Your task to perform on an android device: turn on bluetooth scan Image 0: 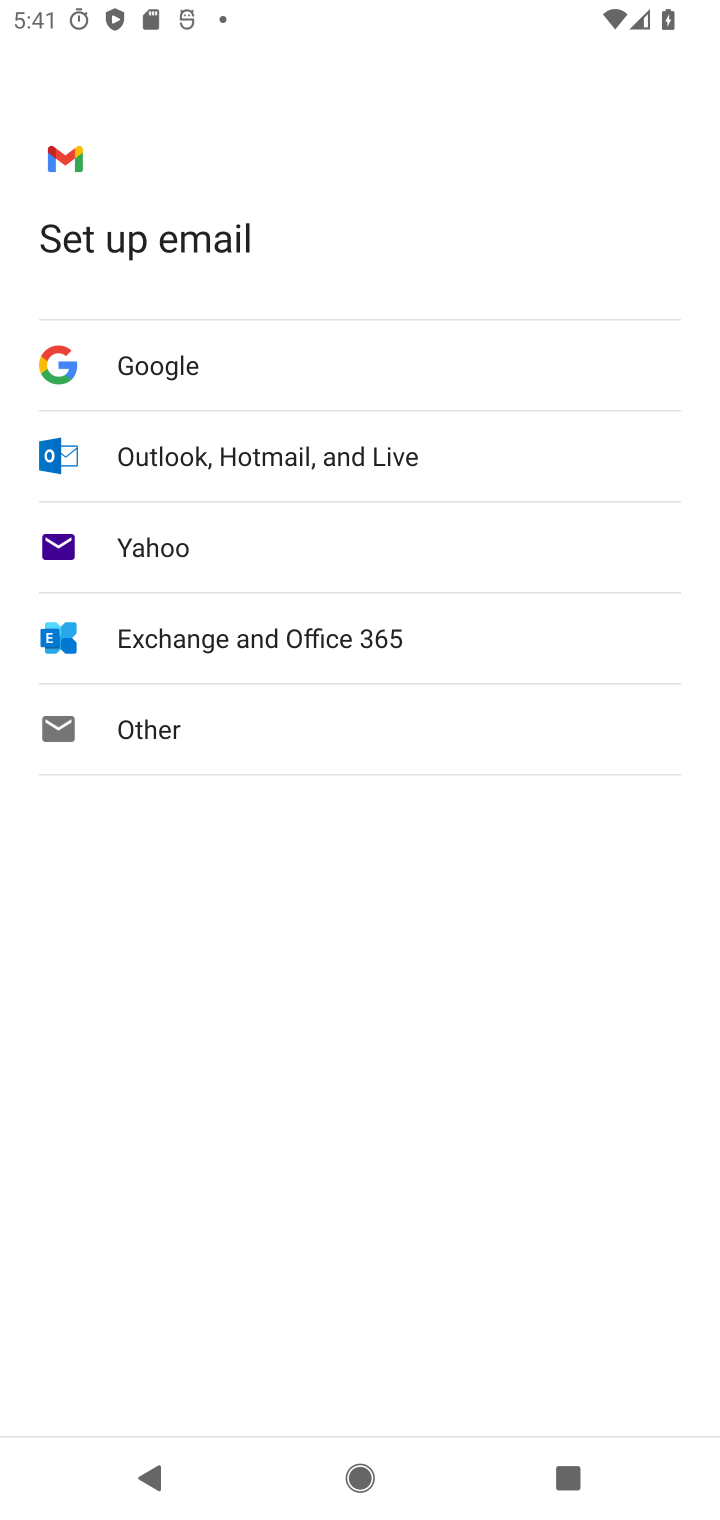
Step 0: press home button
Your task to perform on an android device: turn on bluetooth scan Image 1: 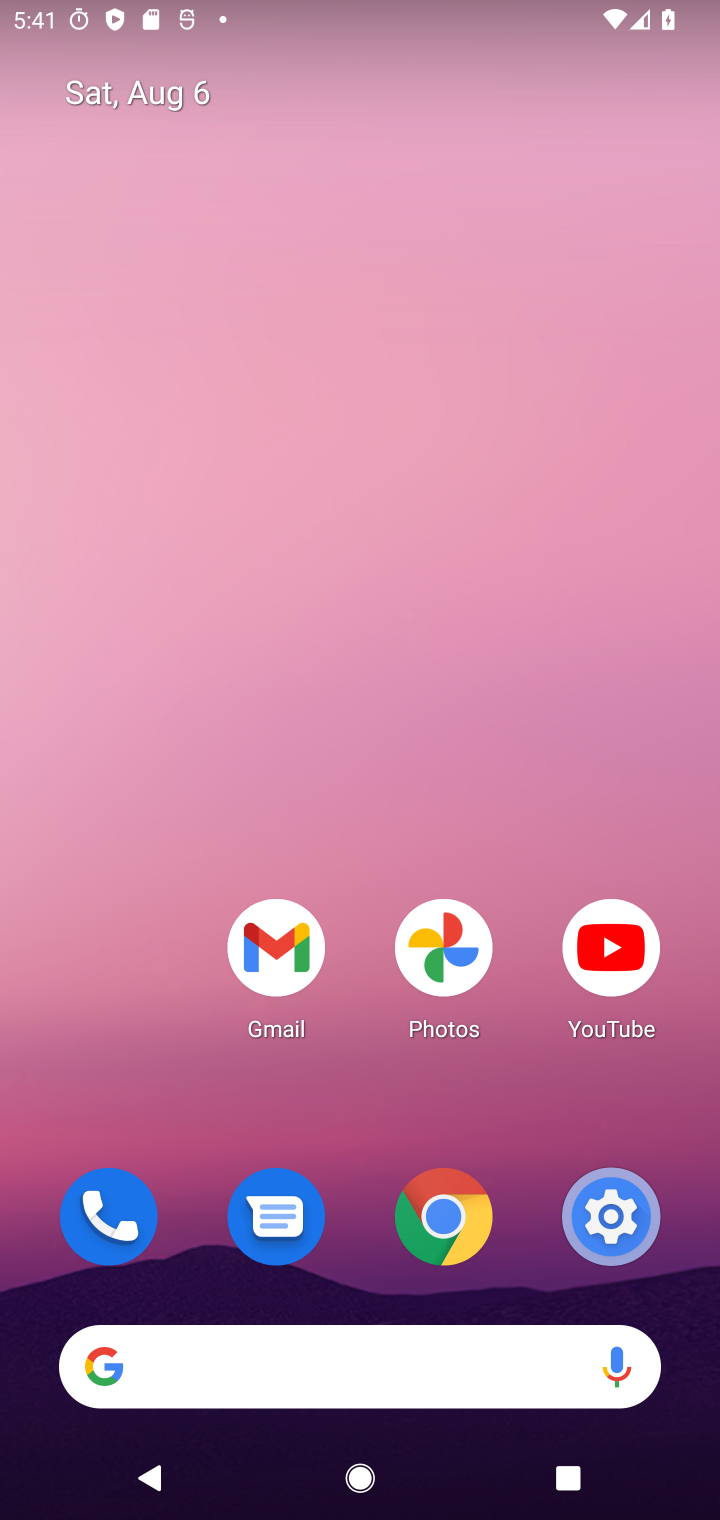
Step 1: drag from (365, 1057) to (446, 277)
Your task to perform on an android device: turn on bluetooth scan Image 2: 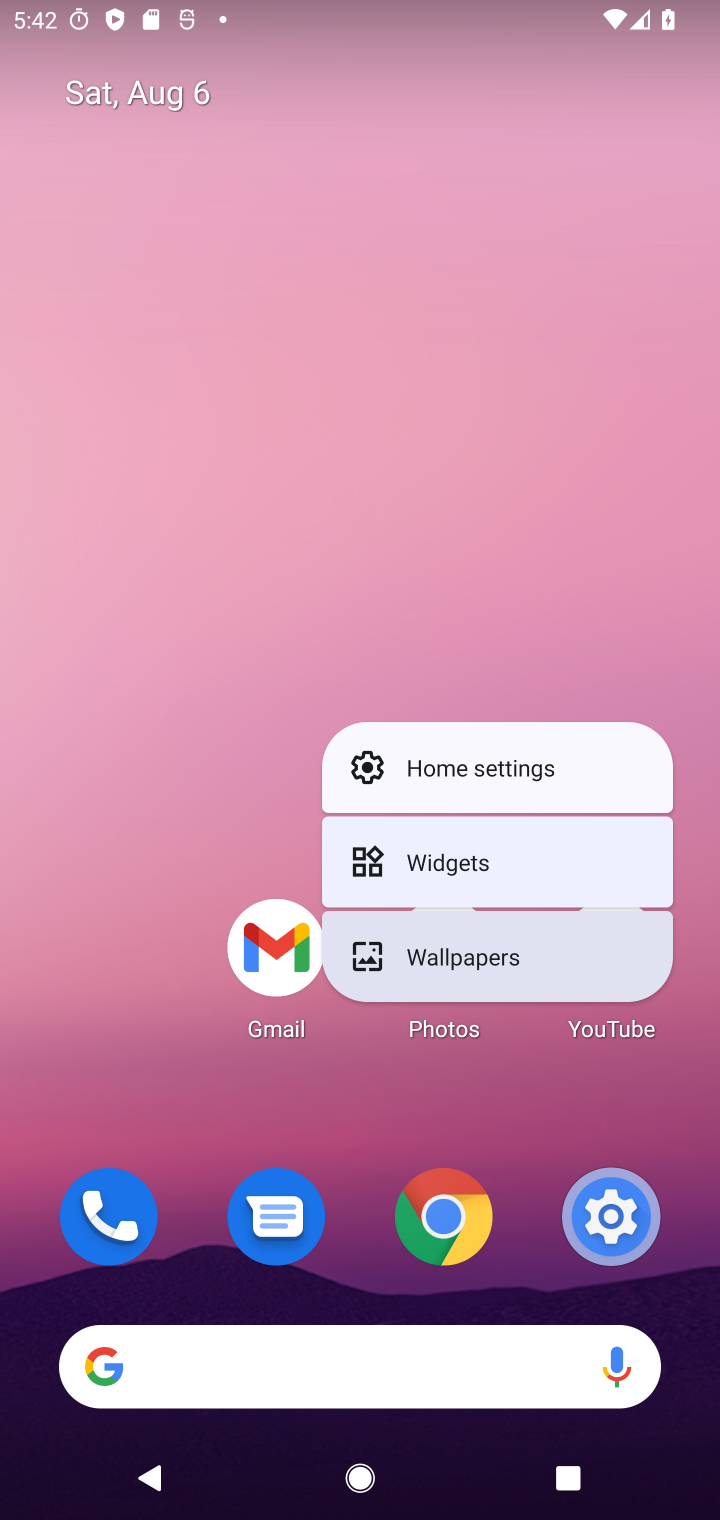
Step 2: click (319, 1090)
Your task to perform on an android device: turn on bluetooth scan Image 3: 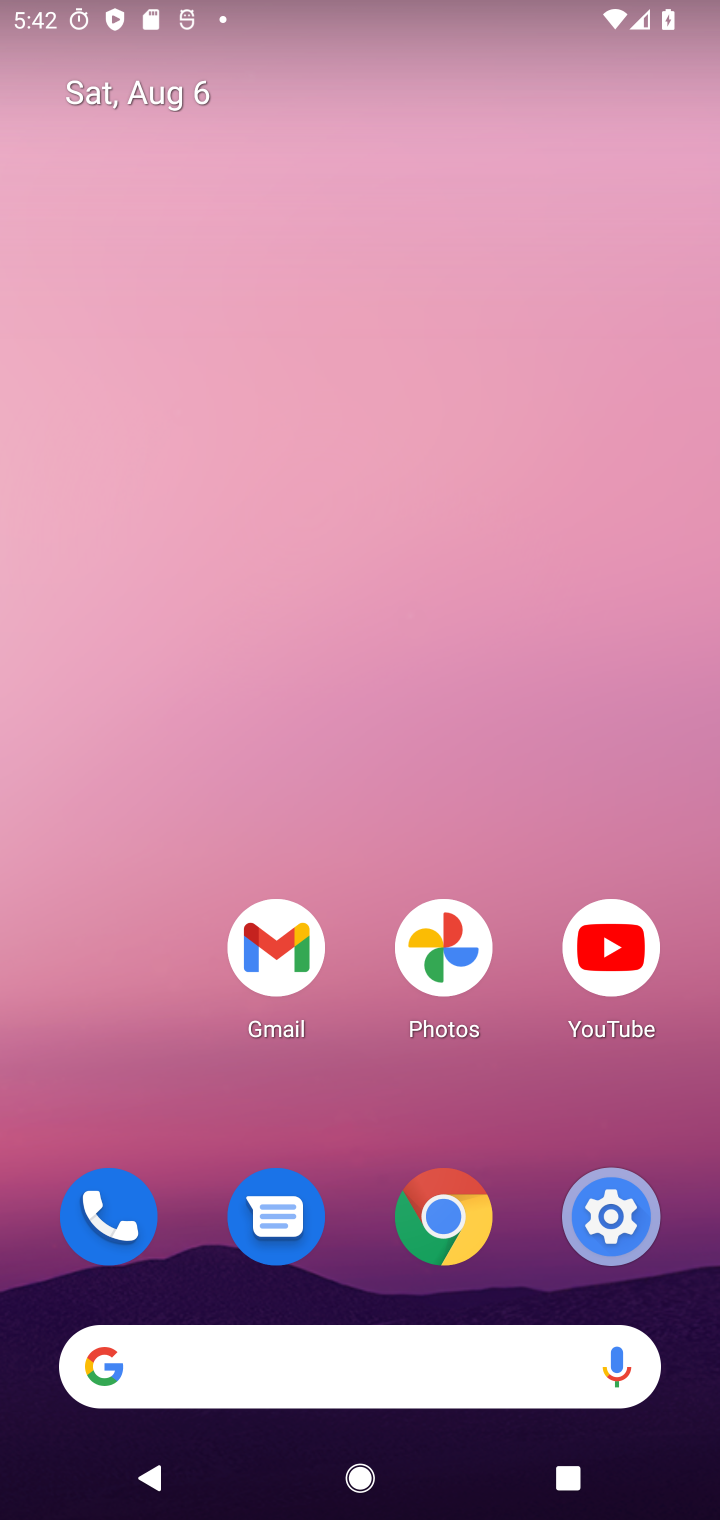
Step 3: drag from (401, 1013) to (506, 243)
Your task to perform on an android device: turn on bluetooth scan Image 4: 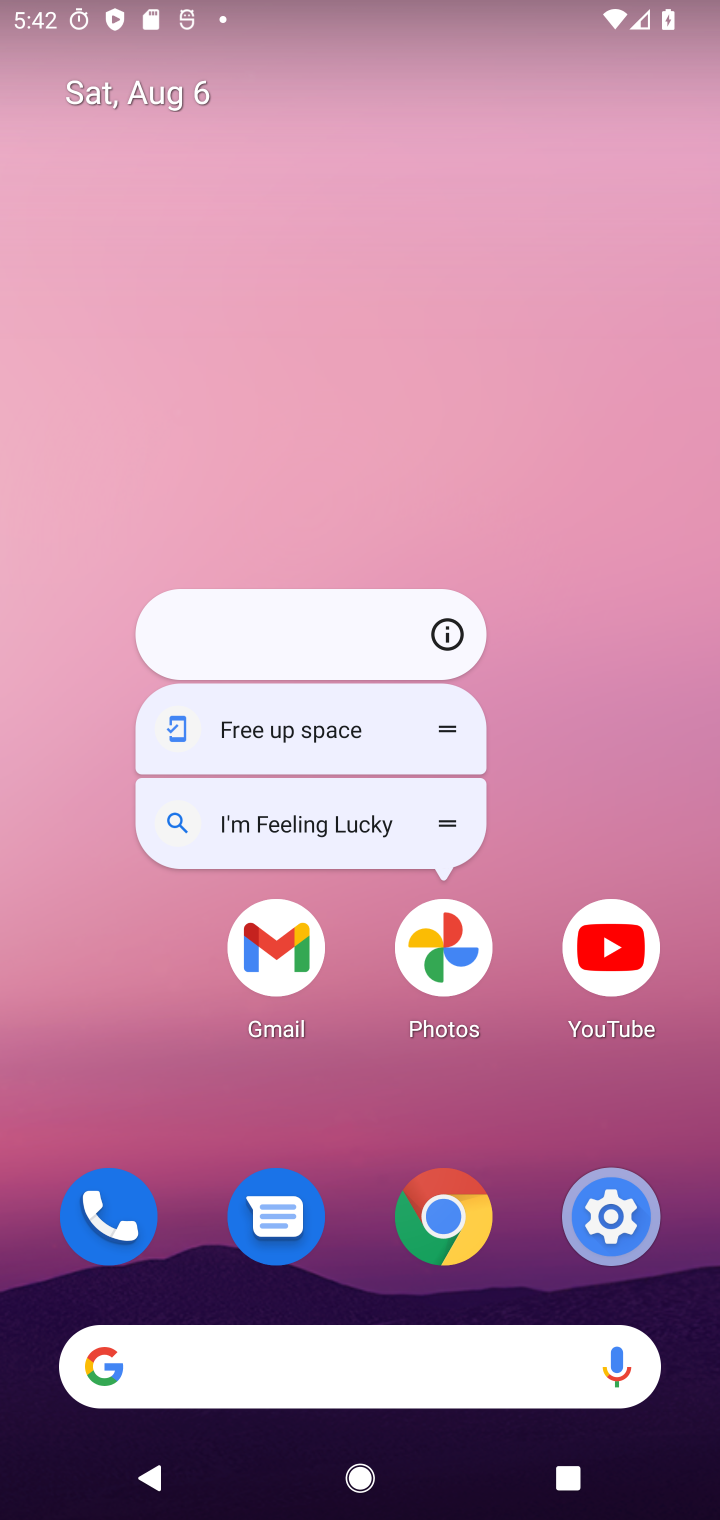
Step 4: click (473, 420)
Your task to perform on an android device: turn on bluetooth scan Image 5: 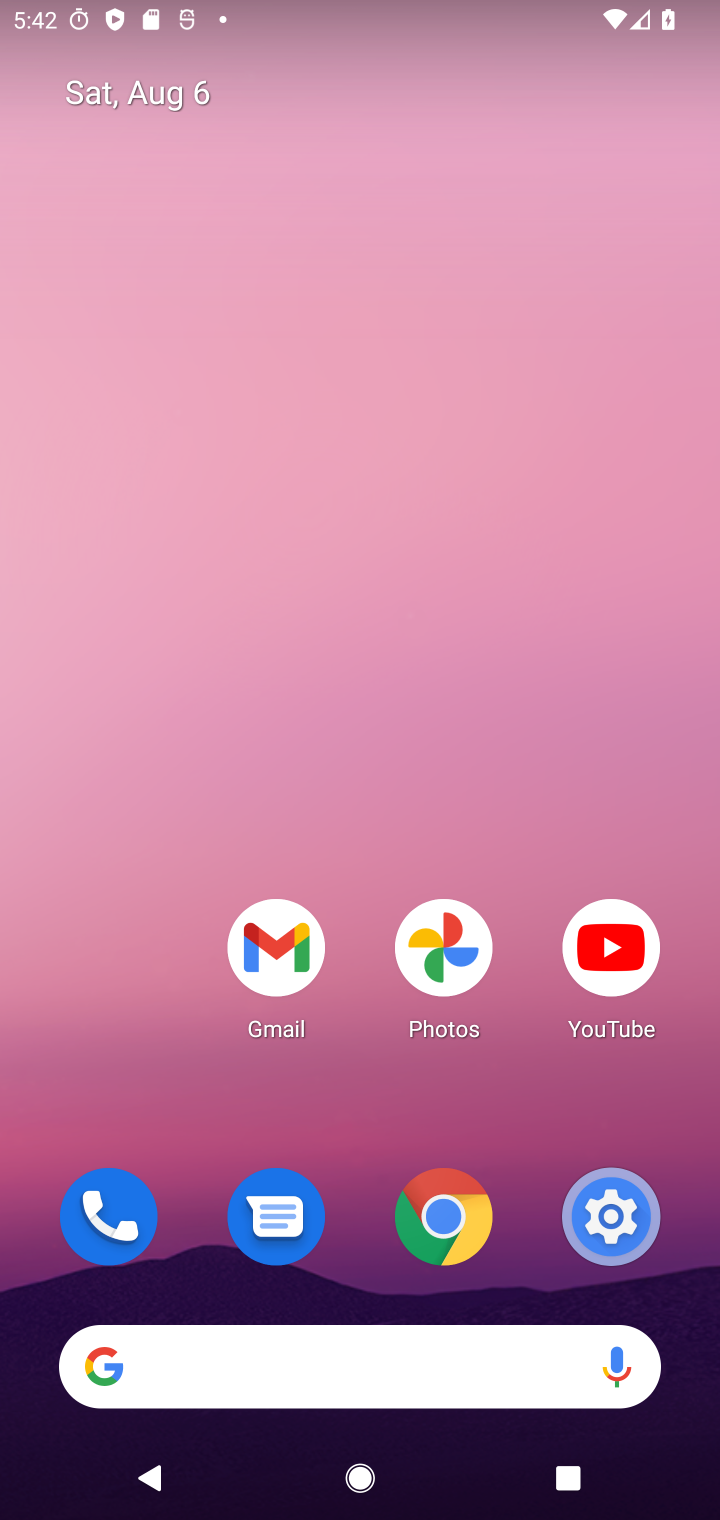
Step 5: click (384, 1151)
Your task to perform on an android device: turn on bluetooth scan Image 6: 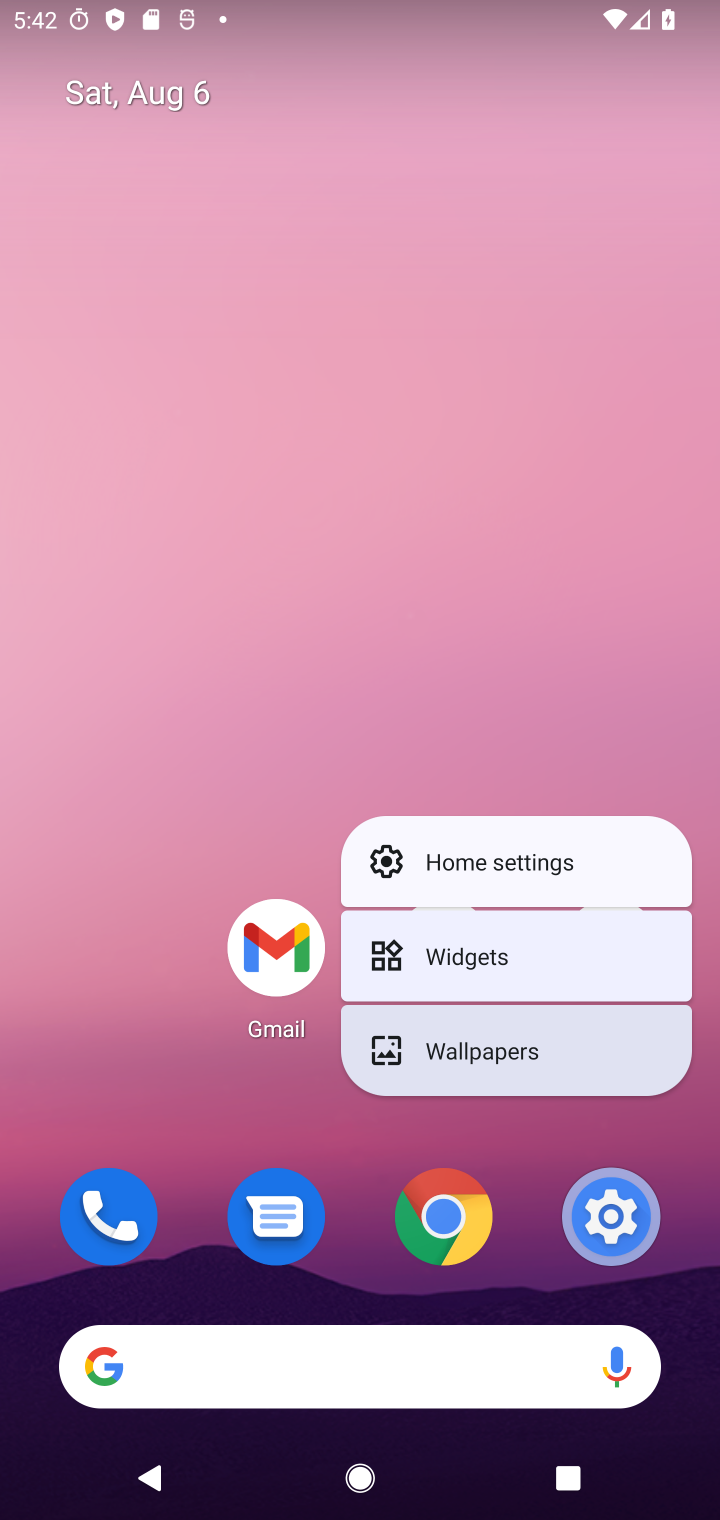
Step 6: click (357, 1135)
Your task to perform on an android device: turn on bluetooth scan Image 7: 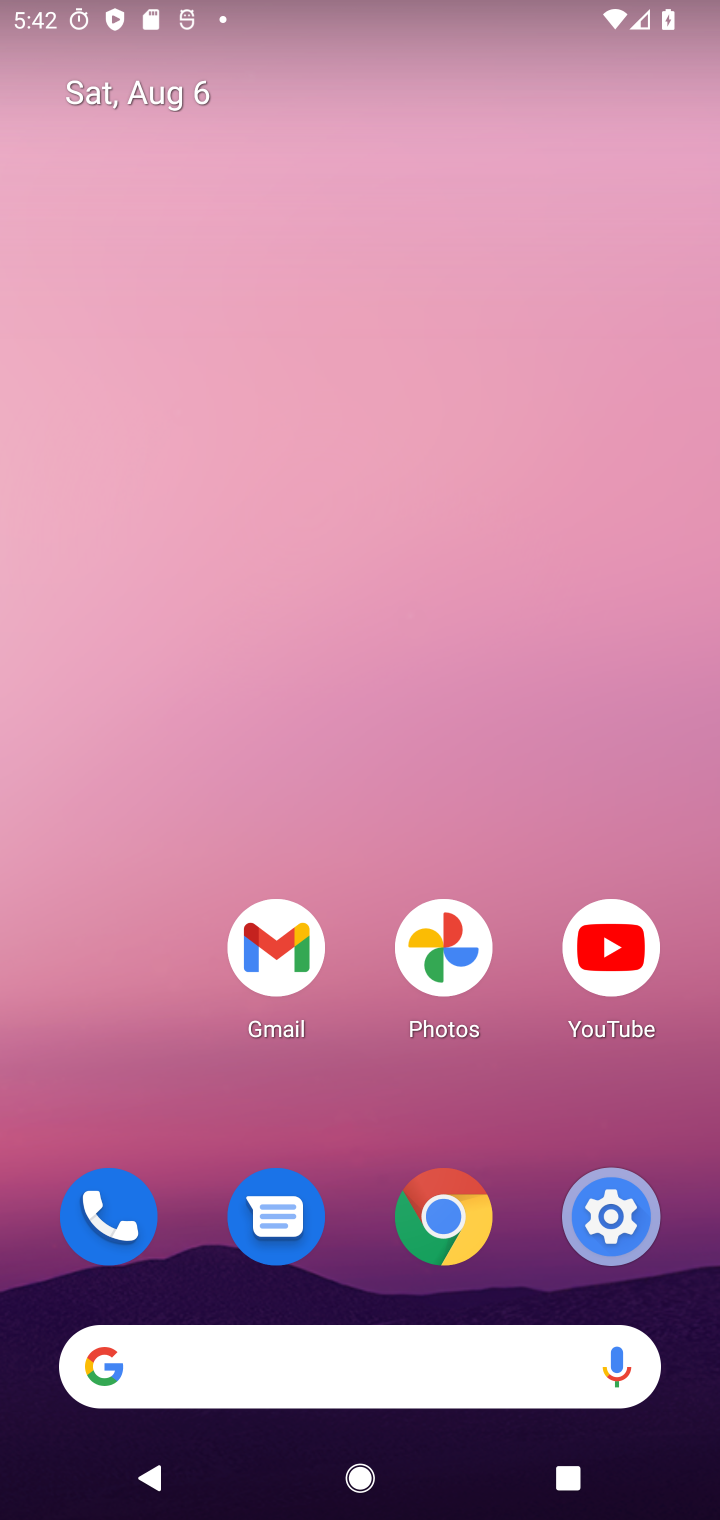
Step 7: drag from (357, 1135) to (401, 119)
Your task to perform on an android device: turn on bluetooth scan Image 8: 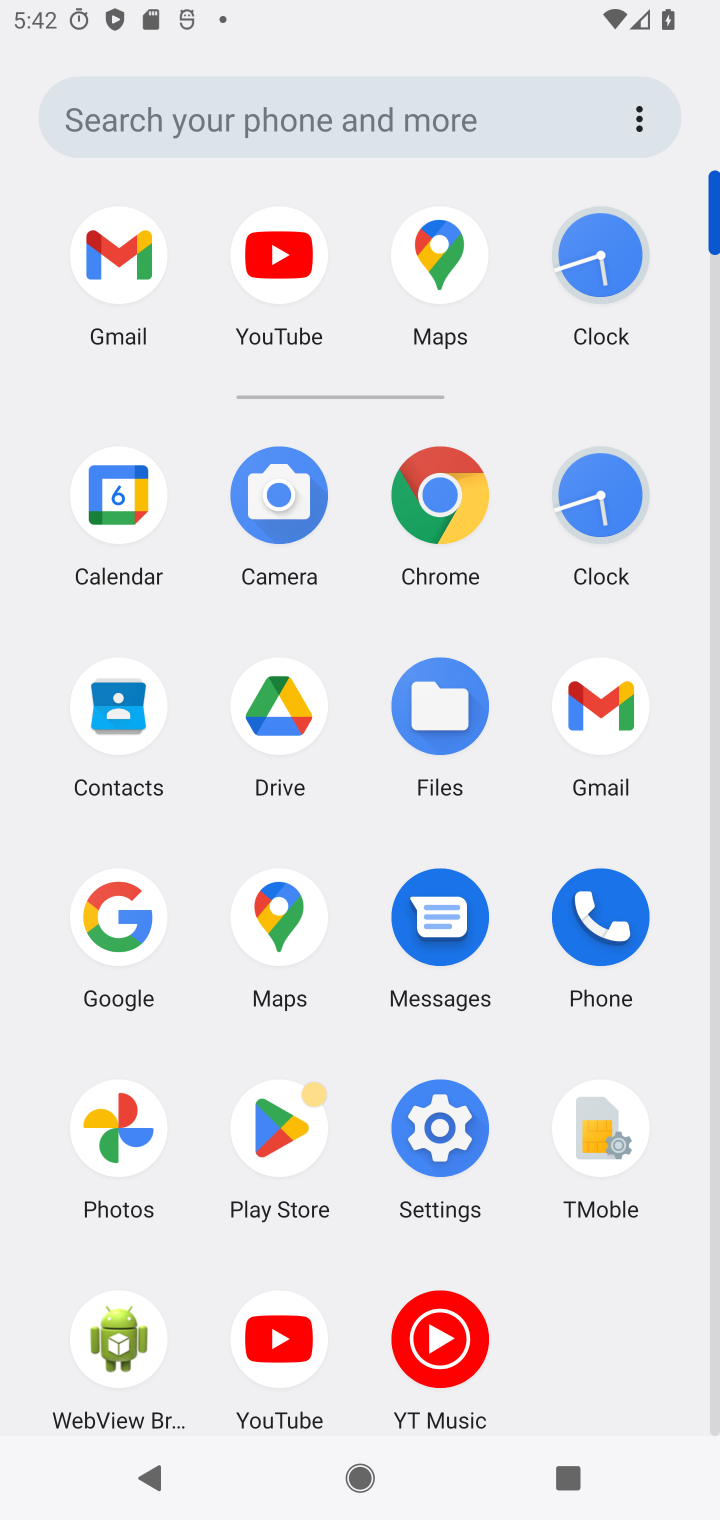
Step 8: click (436, 1121)
Your task to perform on an android device: turn on bluetooth scan Image 9: 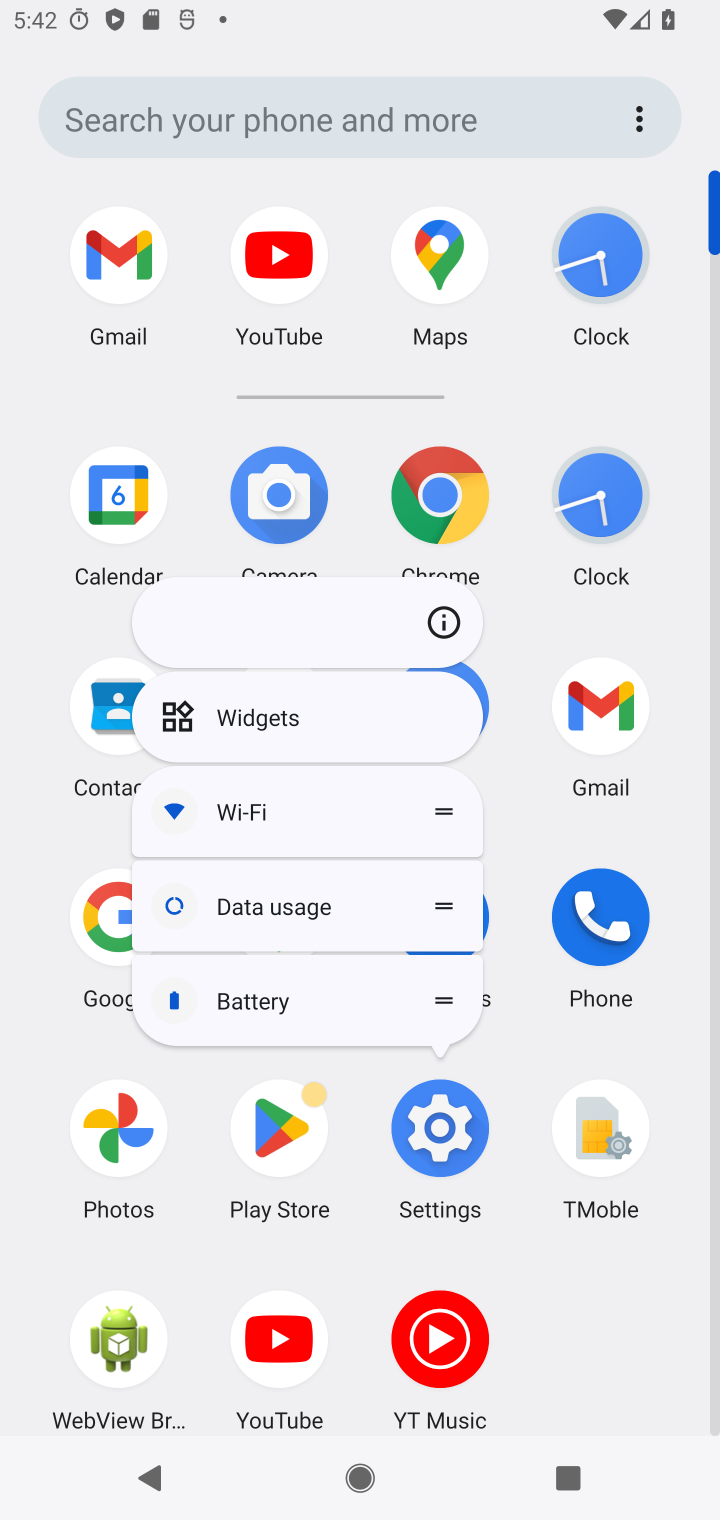
Step 9: click (430, 1124)
Your task to perform on an android device: turn on bluetooth scan Image 10: 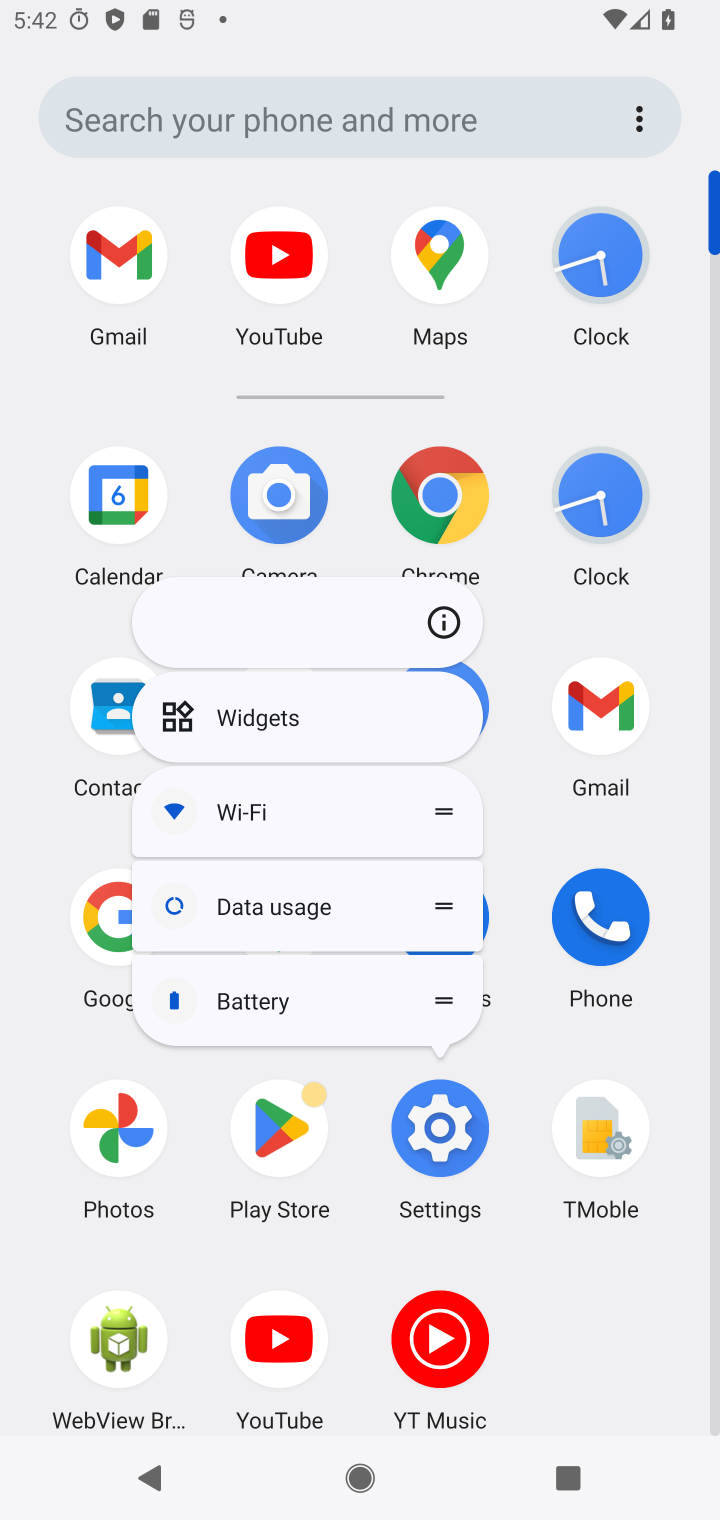
Step 10: click (556, 1300)
Your task to perform on an android device: turn on bluetooth scan Image 11: 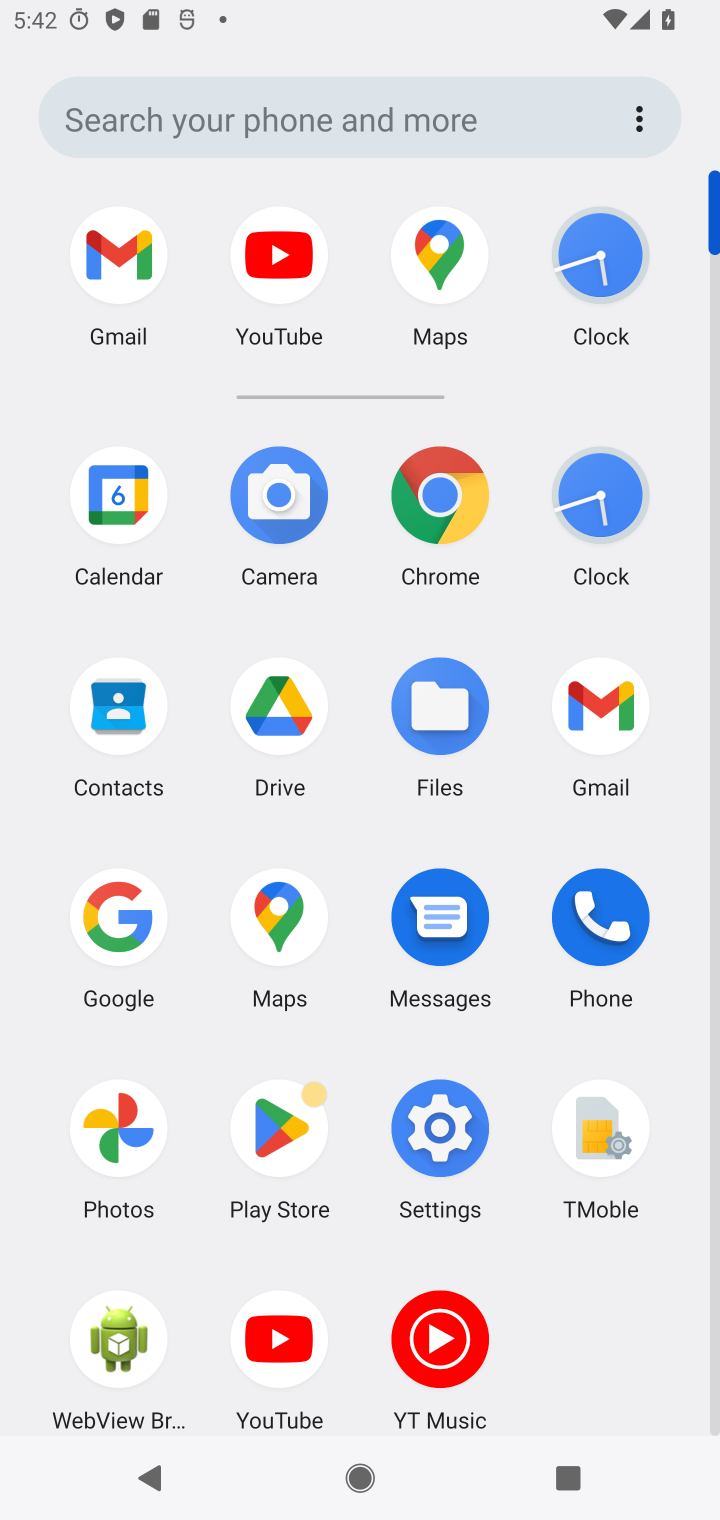
Step 11: click (448, 1128)
Your task to perform on an android device: turn on bluetooth scan Image 12: 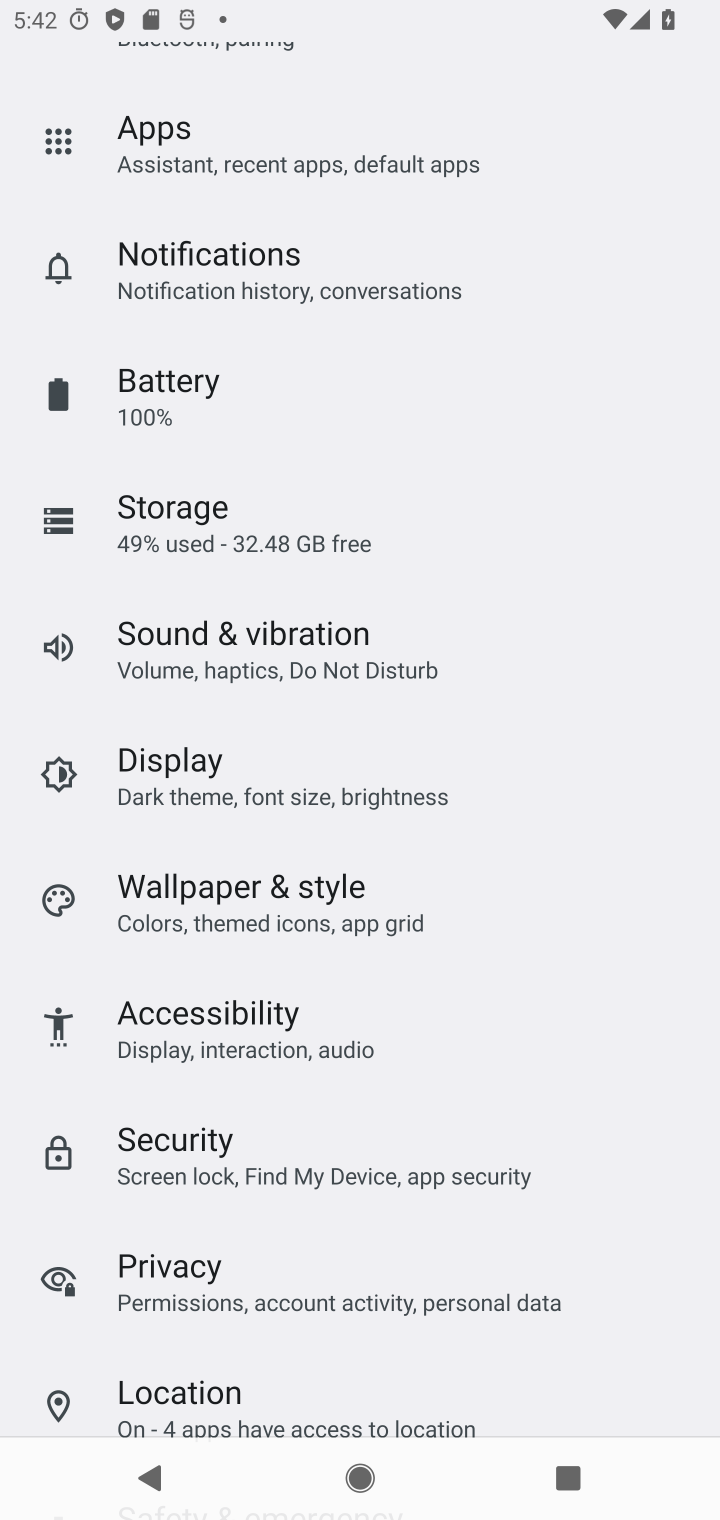
Step 12: click (207, 1381)
Your task to perform on an android device: turn on bluetooth scan Image 13: 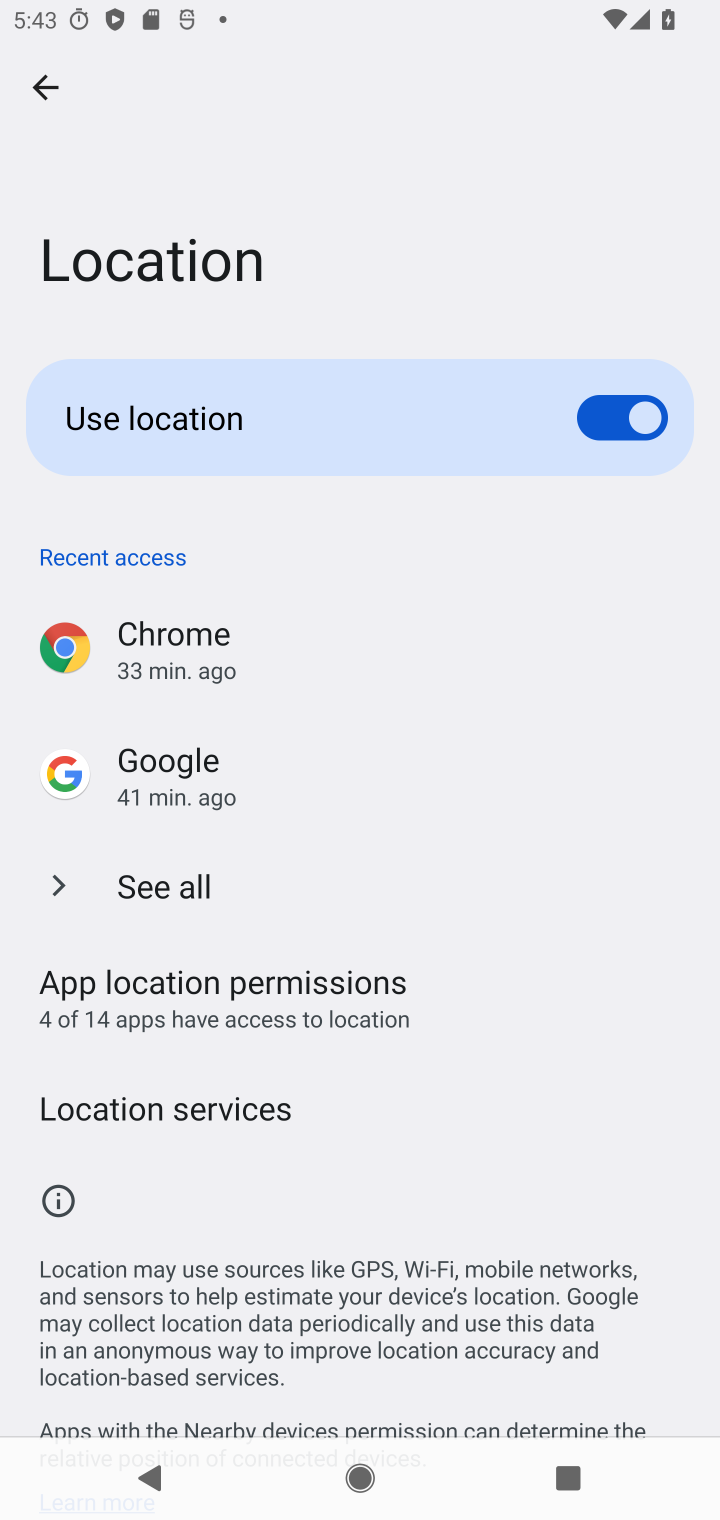
Step 13: click (266, 1112)
Your task to perform on an android device: turn on bluetooth scan Image 14: 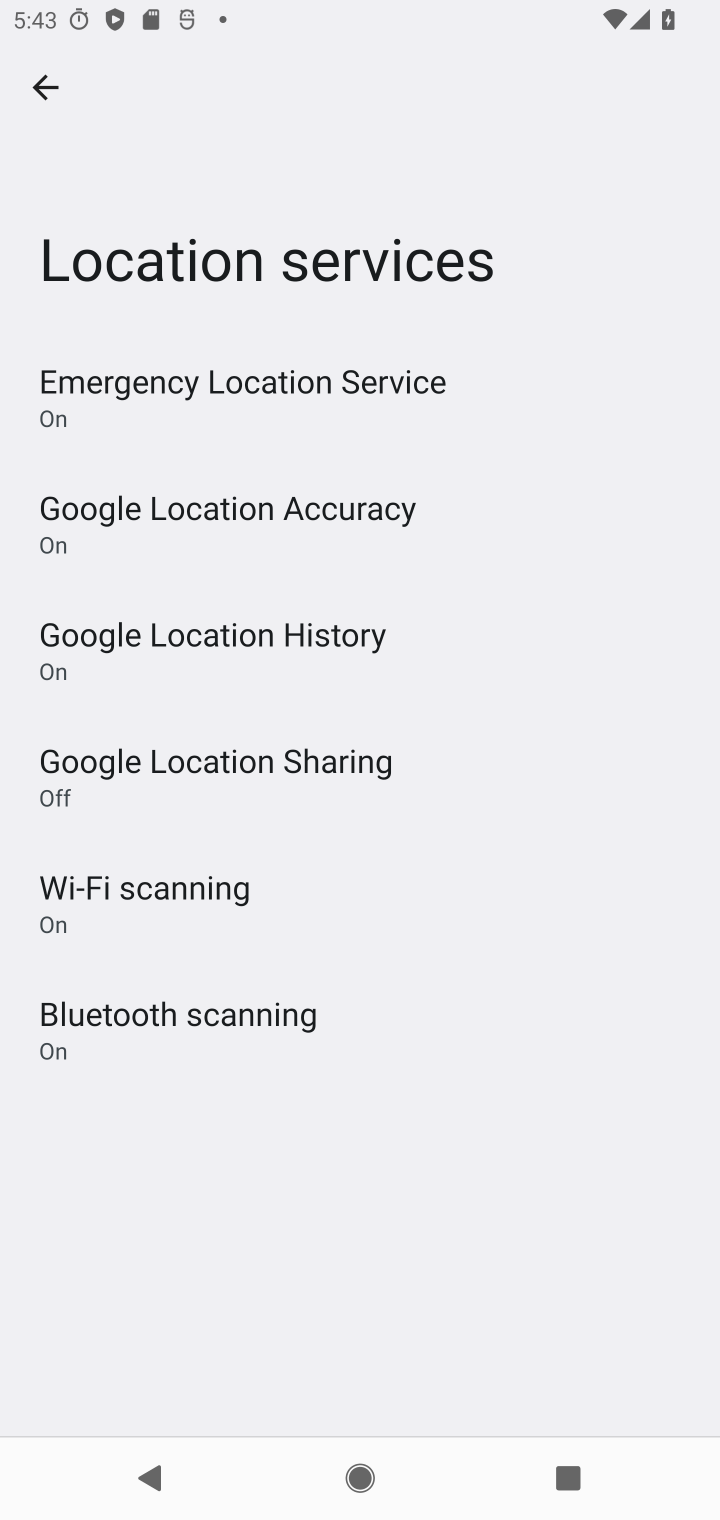
Step 14: click (203, 997)
Your task to perform on an android device: turn on bluetooth scan Image 15: 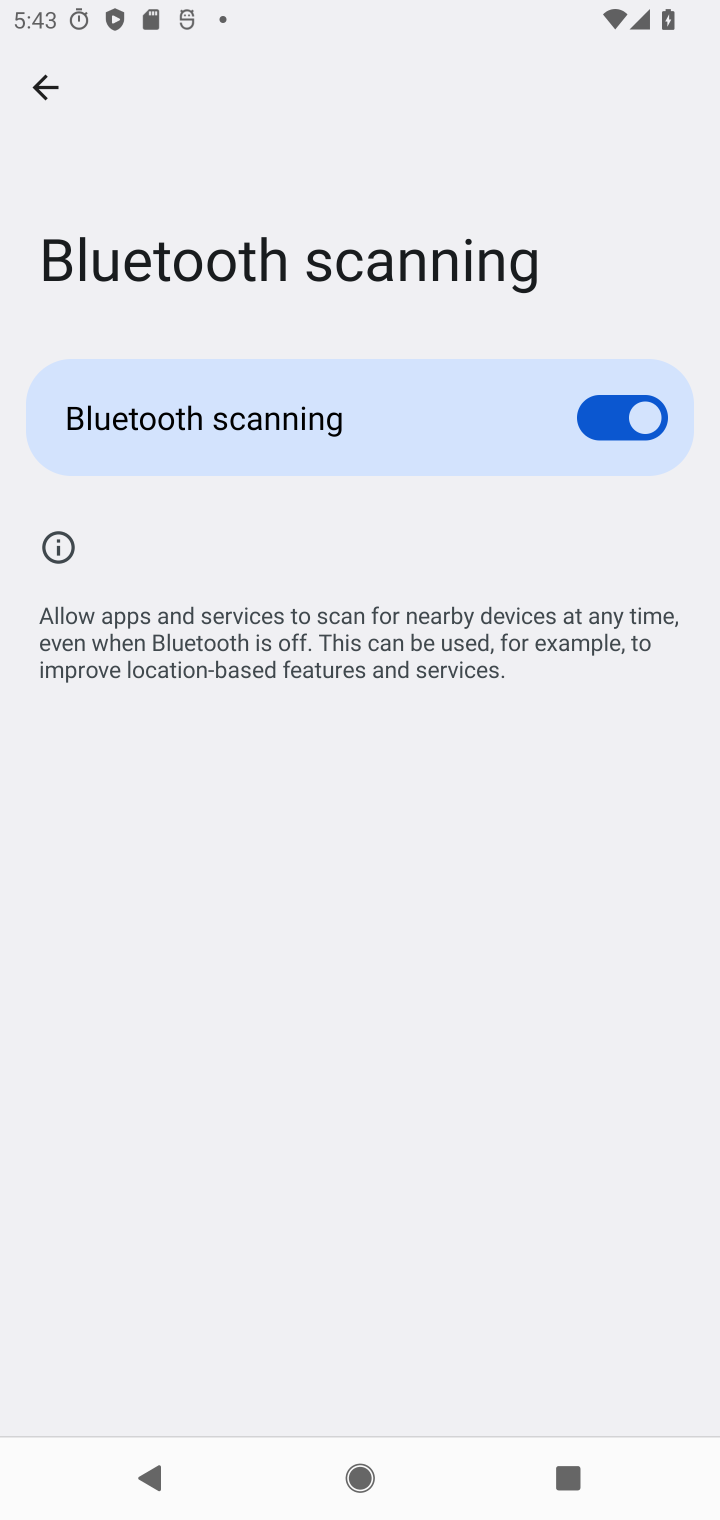
Step 15: task complete